Your task to perform on an android device: open device folders in google photos Image 0: 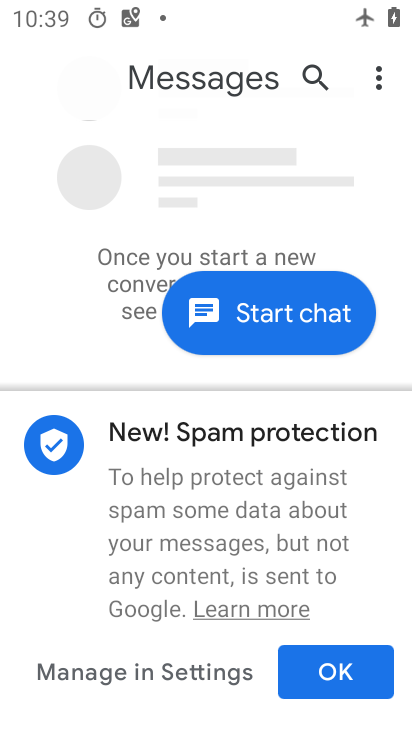
Step 0: drag from (341, 606) to (405, 365)
Your task to perform on an android device: open device folders in google photos Image 1: 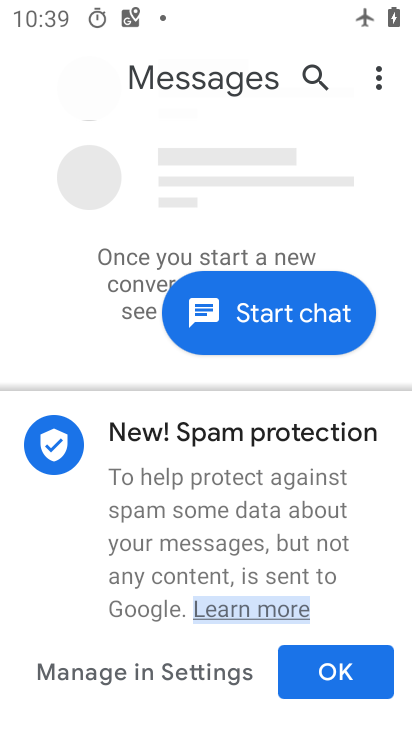
Step 1: press home button
Your task to perform on an android device: open device folders in google photos Image 2: 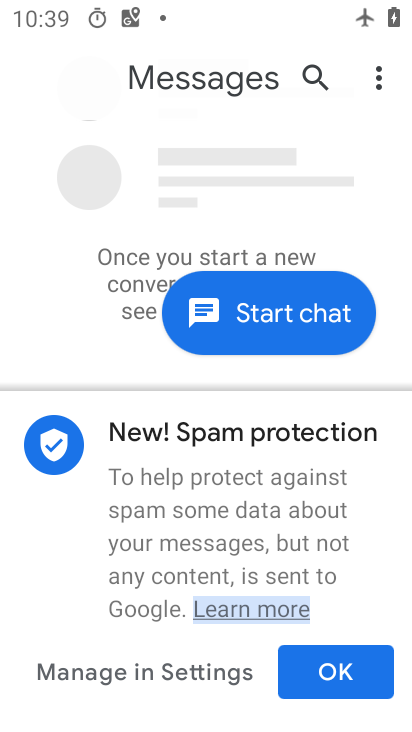
Step 2: click (407, 573)
Your task to perform on an android device: open device folders in google photos Image 3: 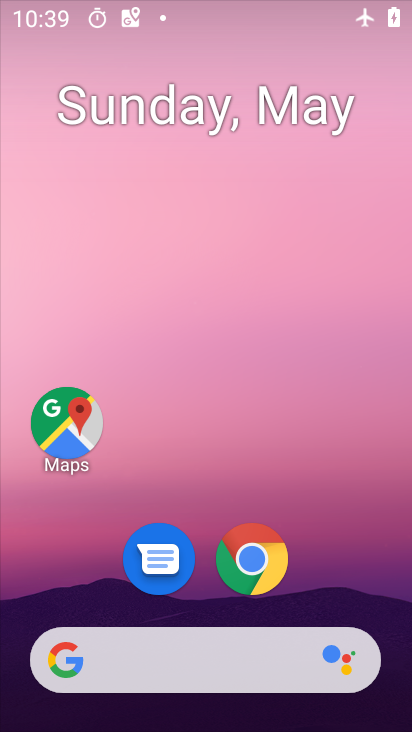
Step 3: drag from (340, 490) to (285, 88)
Your task to perform on an android device: open device folders in google photos Image 4: 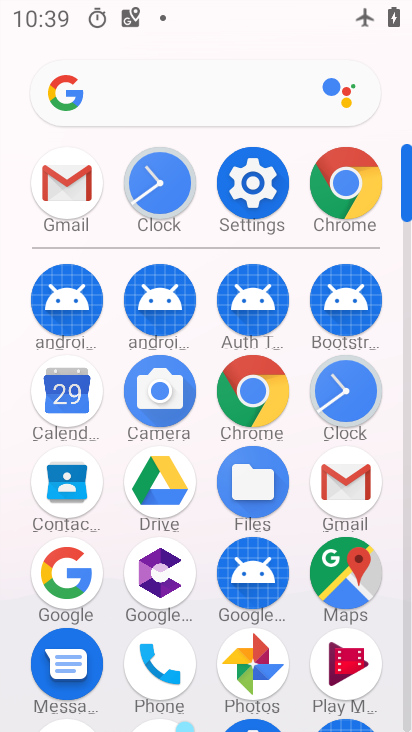
Step 4: click (265, 665)
Your task to perform on an android device: open device folders in google photos Image 5: 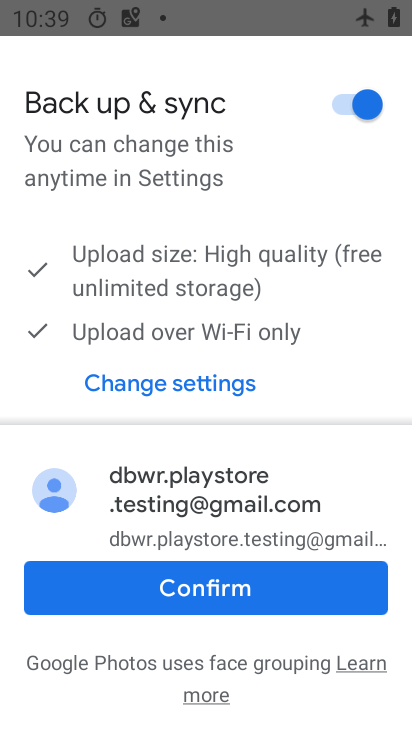
Step 5: click (307, 590)
Your task to perform on an android device: open device folders in google photos Image 6: 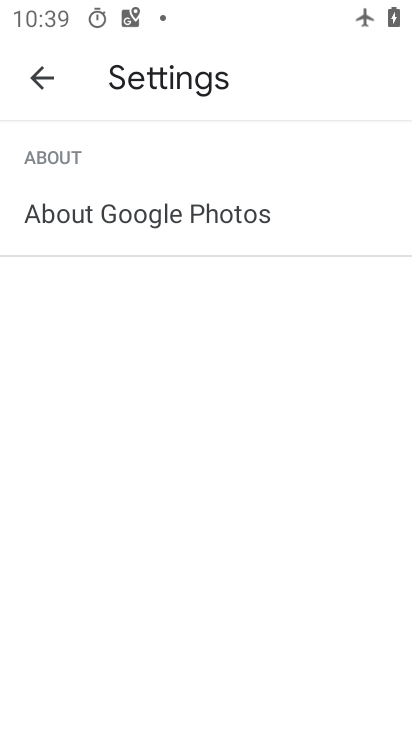
Step 6: click (42, 87)
Your task to perform on an android device: open device folders in google photos Image 7: 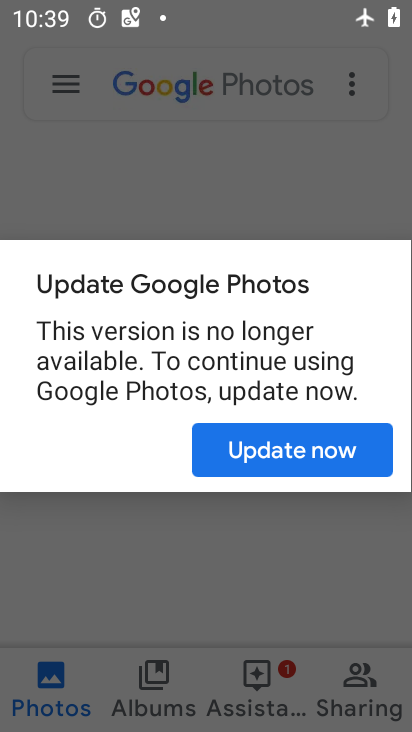
Step 7: click (330, 465)
Your task to perform on an android device: open device folders in google photos Image 8: 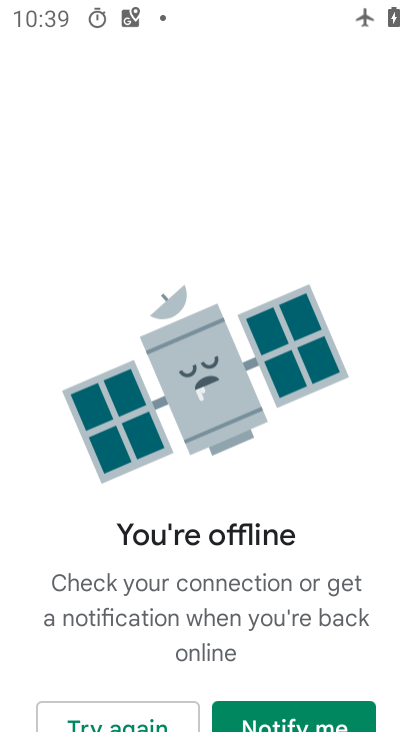
Step 8: task complete